Your task to perform on an android device: Search for vegetarian restaurants on Maps Image 0: 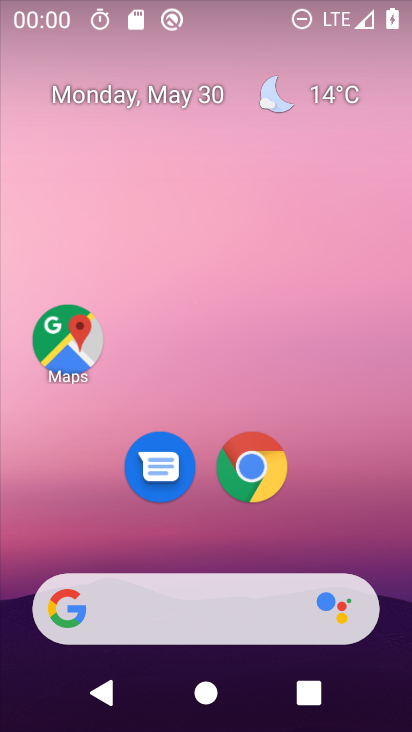
Step 0: click (83, 356)
Your task to perform on an android device: Search for vegetarian restaurants on Maps Image 1: 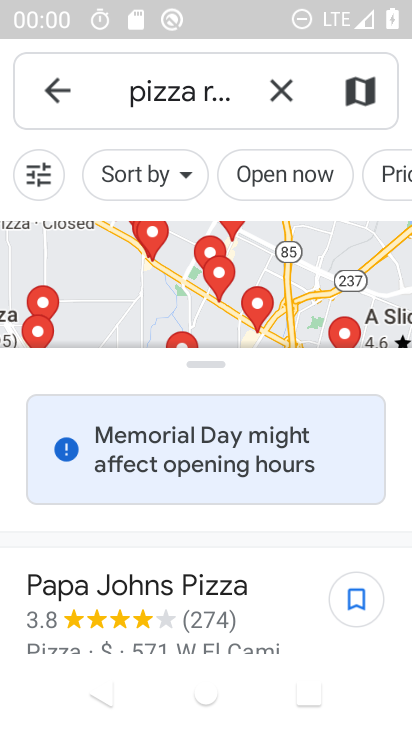
Step 1: click (273, 89)
Your task to perform on an android device: Search for vegetarian restaurants on Maps Image 2: 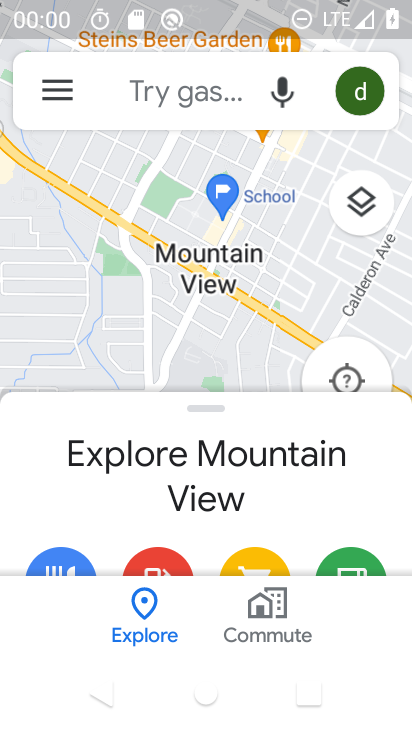
Step 2: click (156, 86)
Your task to perform on an android device: Search for vegetarian restaurants on Maps Image 3: 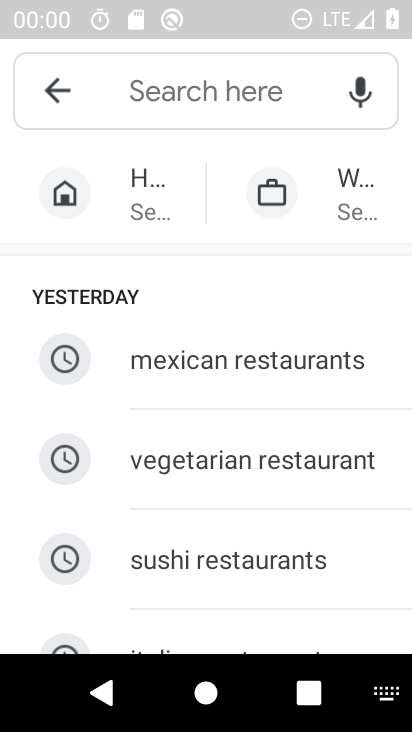
Step 3: click (185, 446)
Your task to perform on an android device: Search for vegetarian restaurants on Maps Image 4: 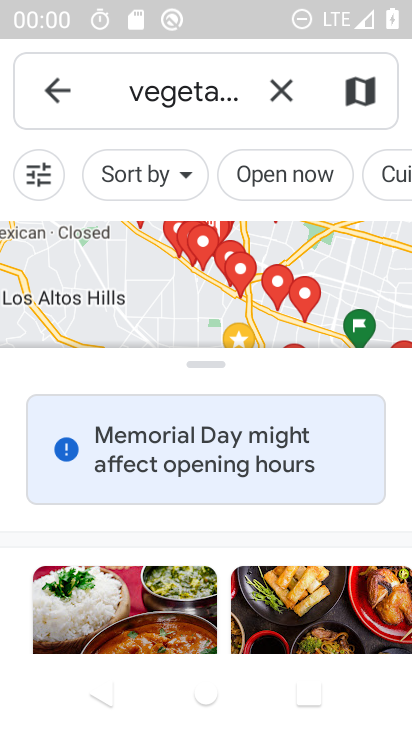
Step 4: task complete